Your task to perform on an android device: Open CNN.com Image 0: 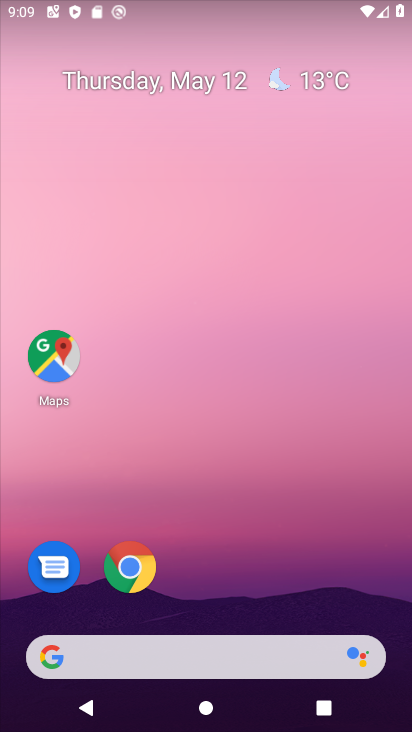
Step 0: press home button
Your task to perform on an android device: Open CNN.com Image 1: 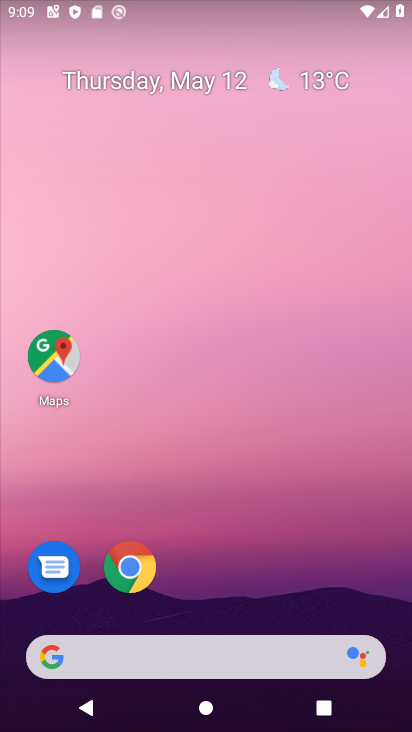
Step 1: click (131, 559)
Your task to perform on an android device: Open CNN.com Image 2: 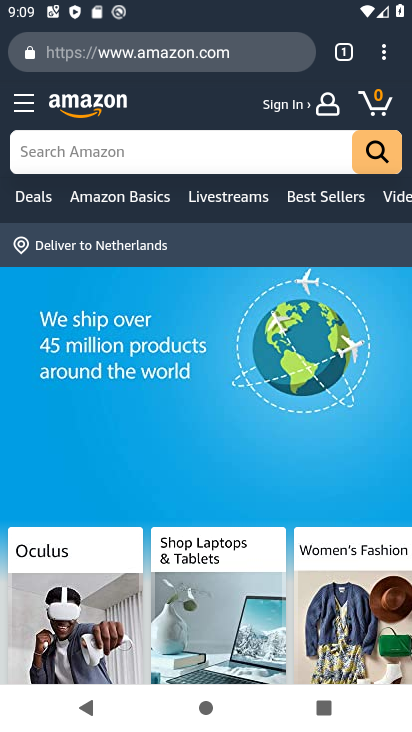
Step 2: click (385, 47)
Your task to perform on an android device: Open CNN.com Image 3: 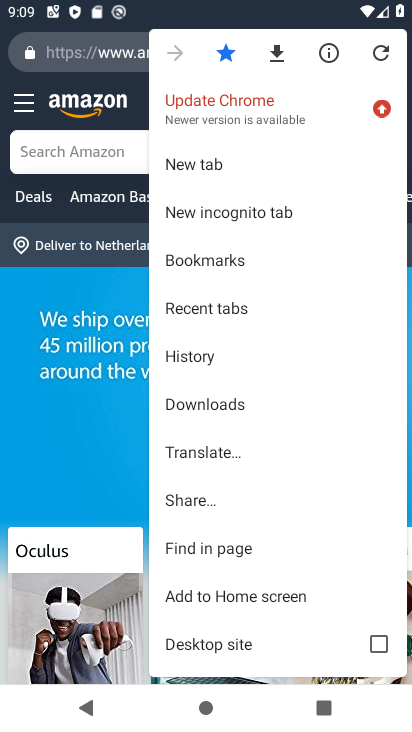
Step 3: click (106, 431)
Your task to perform on an android device: Open CNN.com Image 4: 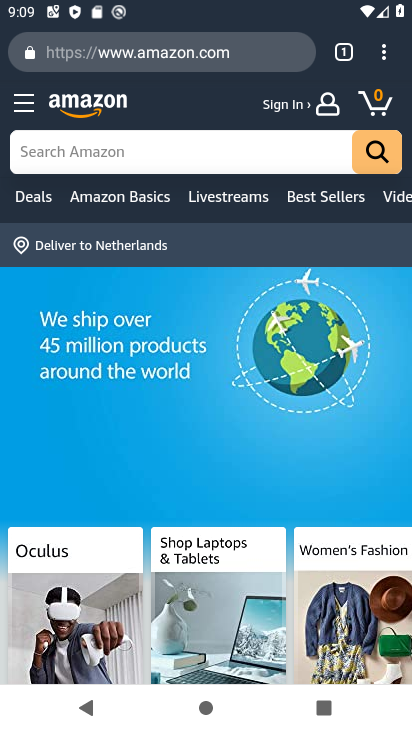
Step 4: click (346, 46)
Your task to perform on an android device: Open CNN.com Image 5: 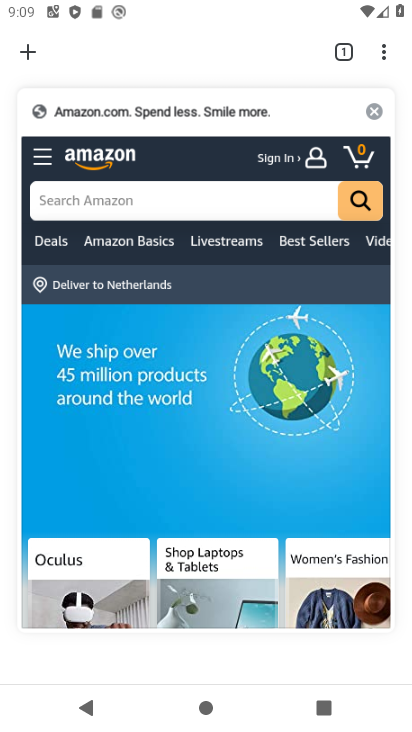
Step 5: click (373, 111)
Your task to perform on an android device: Open CNN.com Image 6: 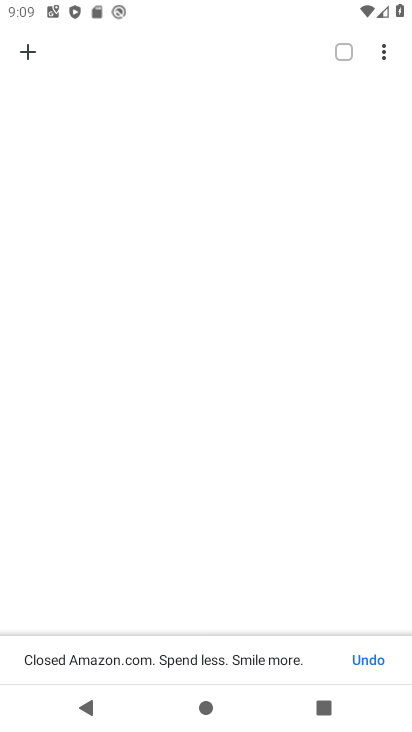
Step 6: click (31, 50)
Your task to perform on an android device: Open CNN.com Image 7: 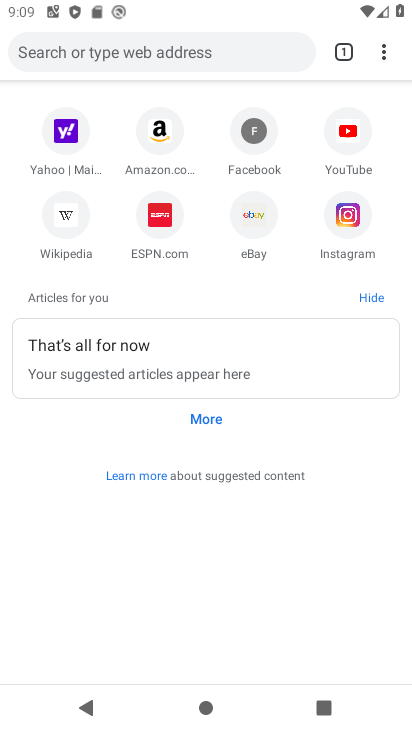
Step 7: click (86, 48)
Your task to perform on an android device: Open CNN.com Image 8: 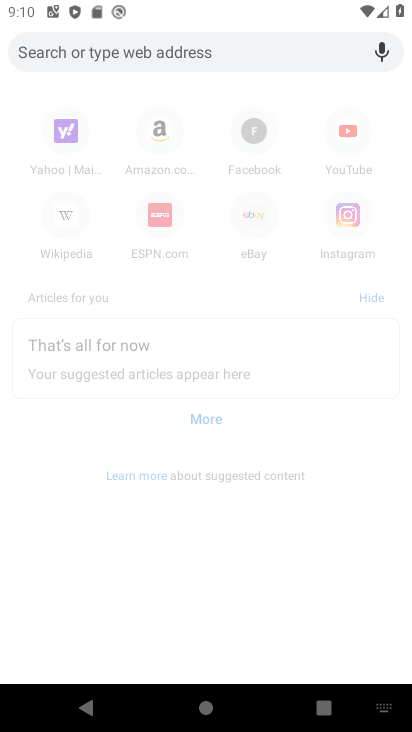
Step 8: type "cnn.com"
Your task to perform on an android device: Open CNN.com Image 9: 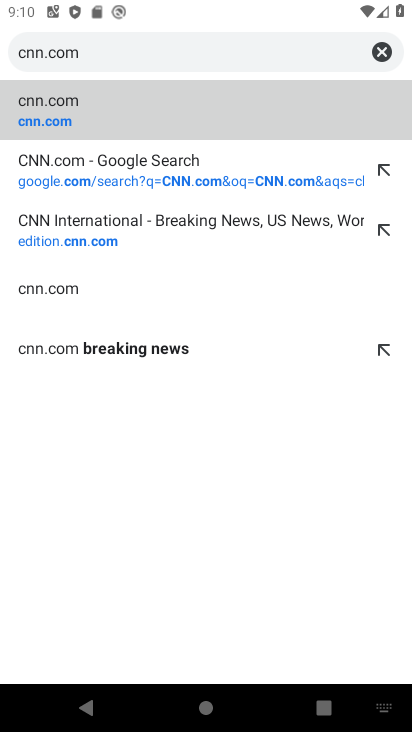
Step 9: click (122, 176)
Your task to perform on an android device: Open CNN.com Image 10: 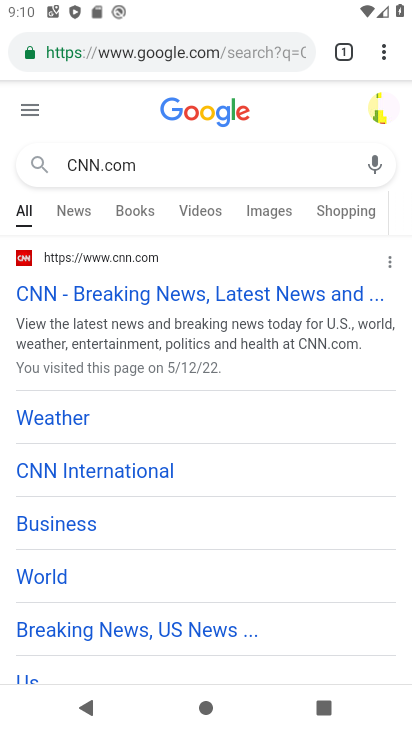
Step 10: click (153, 291)
Your task to perform on an android device: Open CNN.com Image 11: 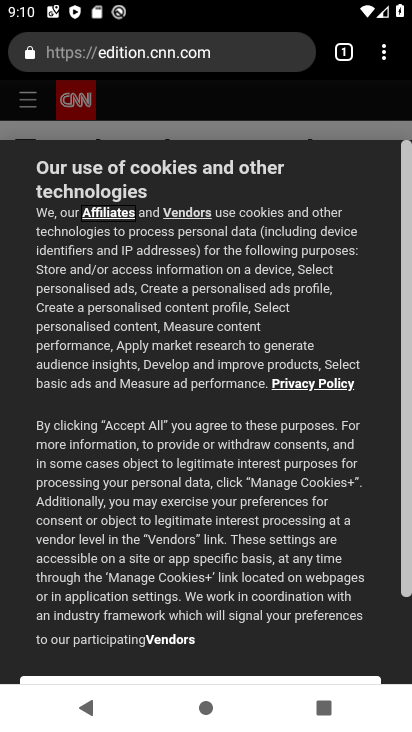
Step 11: drag from (214, 626) to (252, 172)
Your task to perform on an android device: Open CNN.com Image 12: 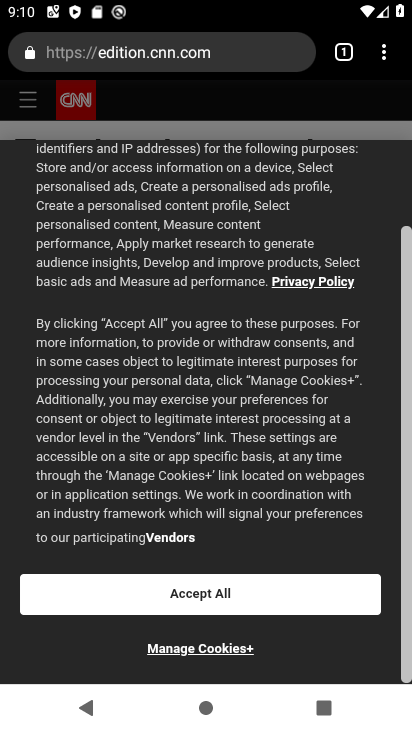
Step 12: click (201, 588)
Your task to perform on an android device: Open CNN.com Image 13: 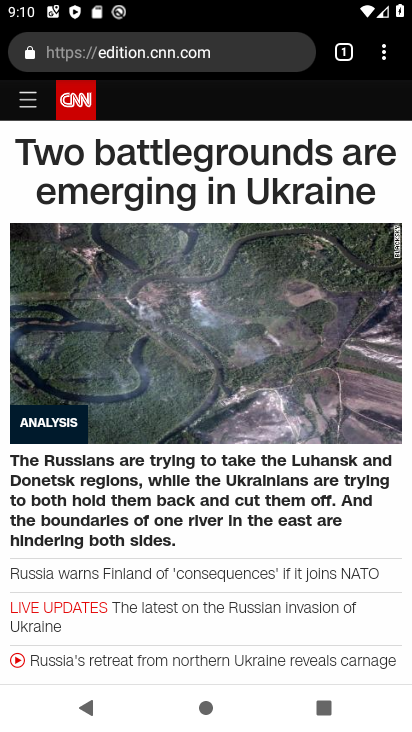
Step 13: task complete